Your task to perform on an android device: toggle data saver in the chrome app Image 0: 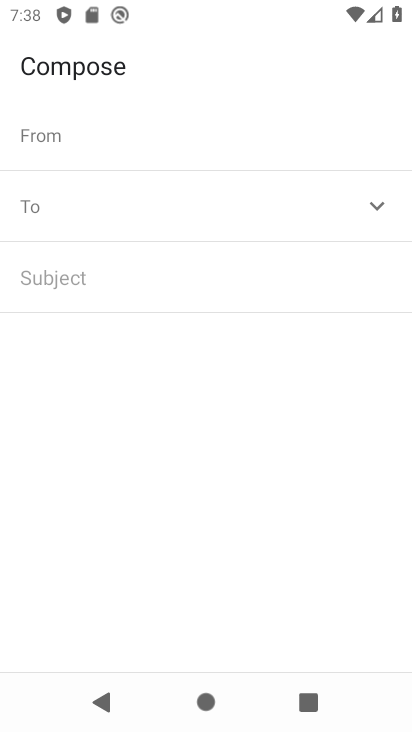
Step 0: press home button
Your task to perform on an android device: toggle data saver in the chrome app Image 1: 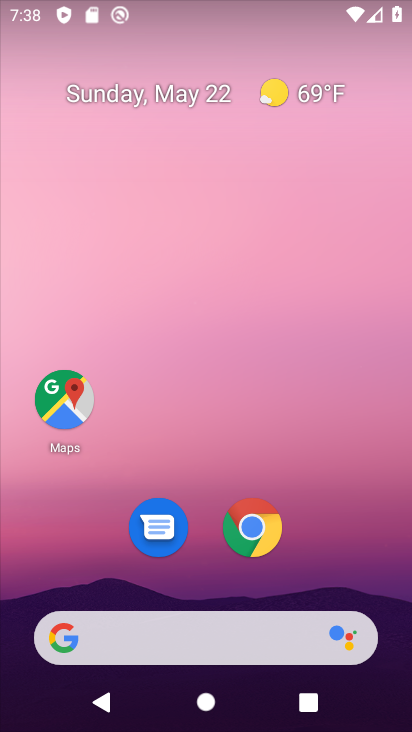
Step 1: click (251, 524)
Your task to perform on an android device: toggle data saver in the chrome app Image 2: 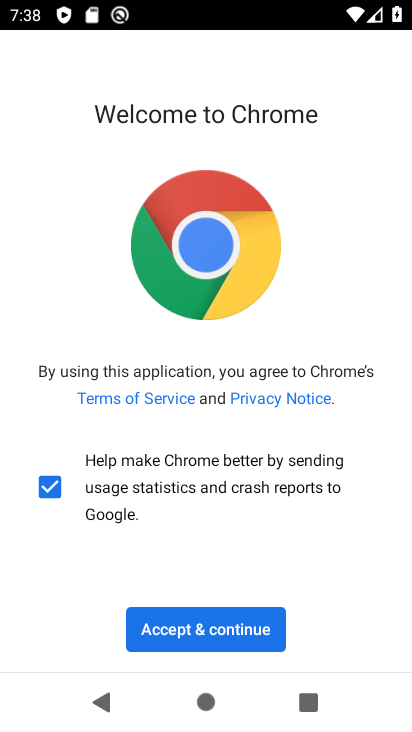
Step 2: click (201, 625)
Your task to perform on an android device: toggle data saver in the chrome app Image 3: 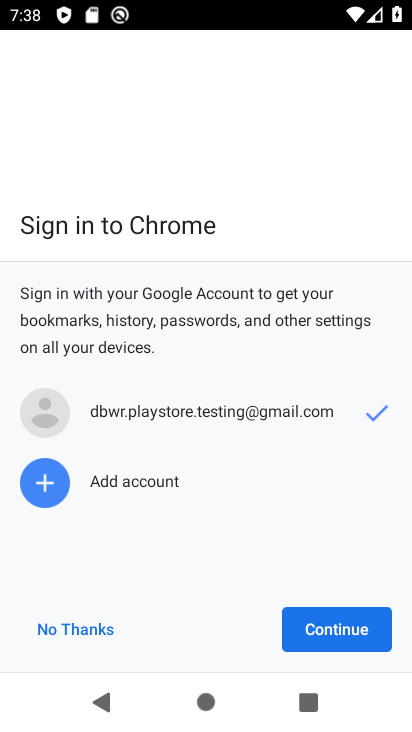
Step 3: click (350, 622)
Your task to perform on an android device: toggle data saver in the chrome app Image 4: 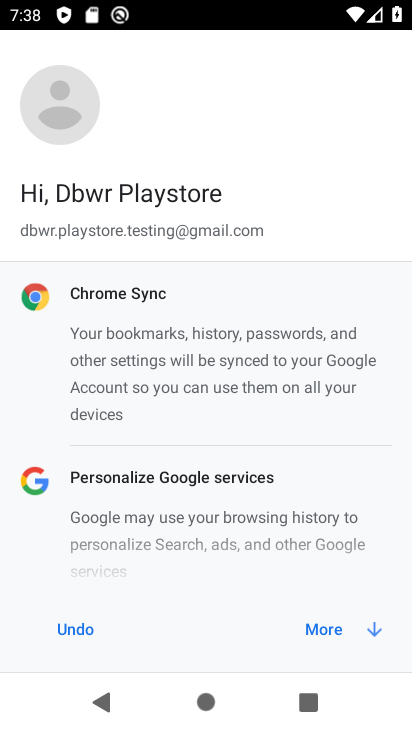
Step 4: click (355, 636)
Your task to perform on an android device: toggle data saver in the chrome app Image 5: 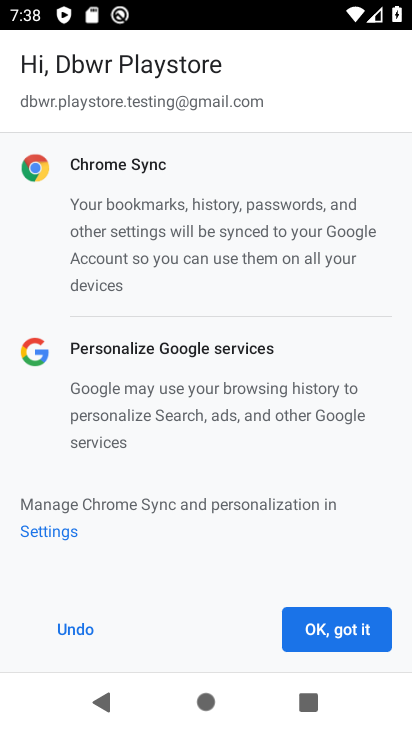
Step 5: click (340, 621)
Your task to perform on an android device: toggle data saver in the chrome app Image 6: 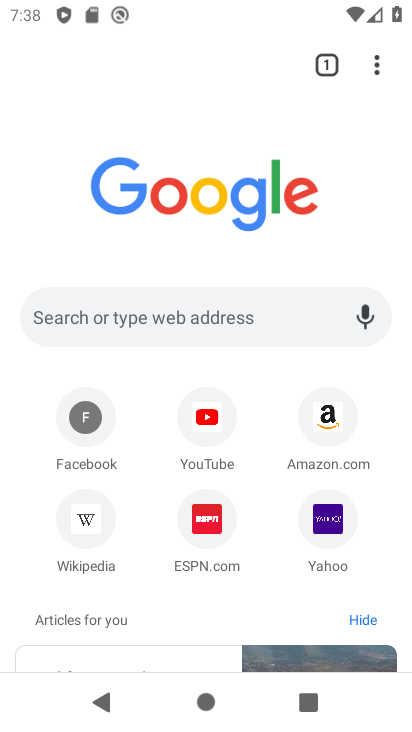
Step 6: click (384, 63)
Your task to perform on an android device: toggle data saver in the chrome app Image 7: 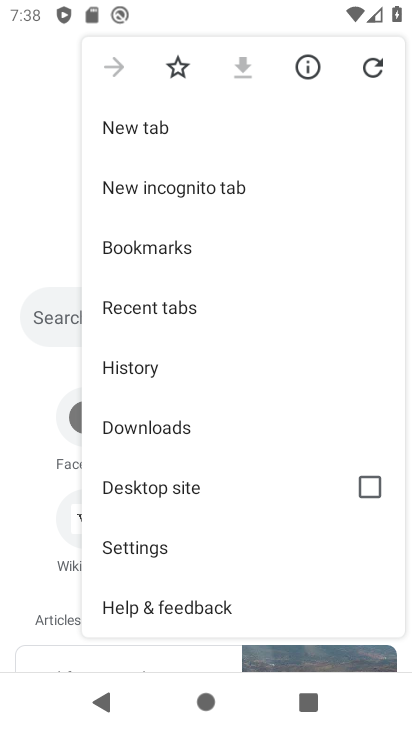
Step 7: click (175, 541)
Your task to perform on an android device: toggle data saver in the chrome app Image 8: 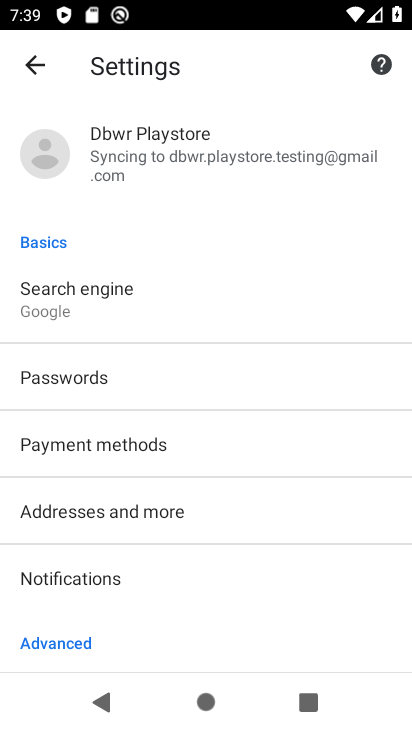
Step 8: drag from (197, 606) to (197, 119)
Your task to perform on an android device: toggle data saver in the chrome app Image 9: 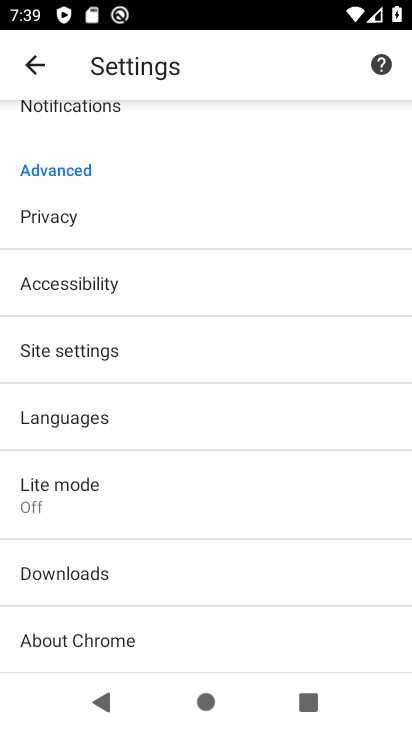
Step 9: click (100, 512)
Your task to perform on an android device: toggle data saver in the chrome app Image 10: 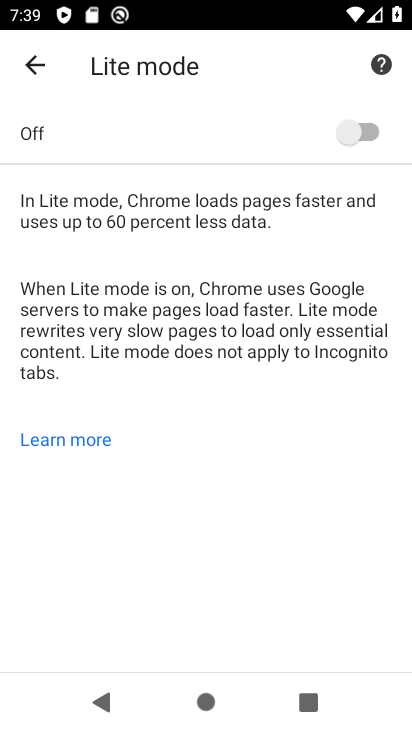
Step 10: click (349, 132)
Your task to perform on an android device: toggle data saver in the chrome app Image 11: 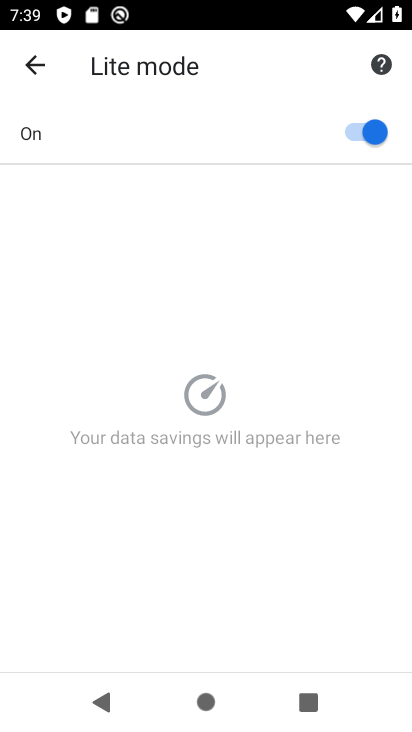
Step 11: task complete